Your task to perform on an android device: Open settings Image 0: 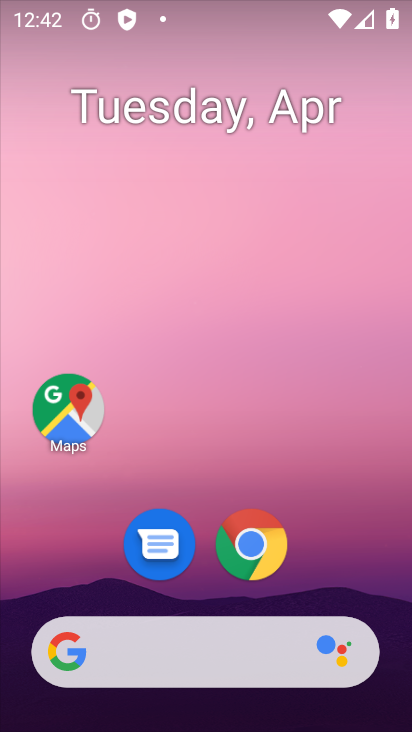
Step 0: drag from (375, 586) to (407, 74)
Your task to perform on an android device: Open settings Image 1: 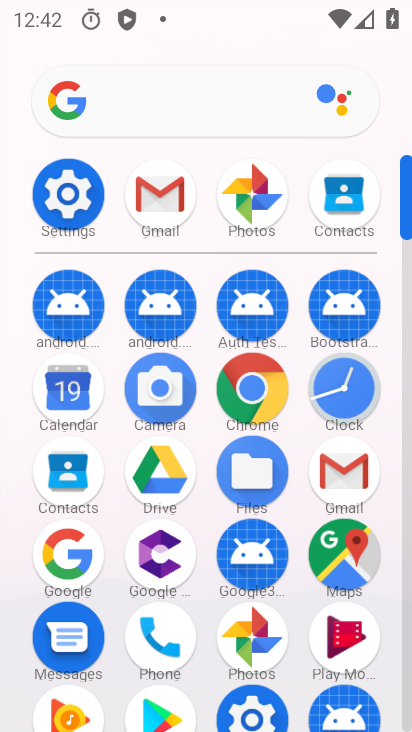
Step 1: click (70, 197)
Your task to perform on an android device: Open settings Image 2: 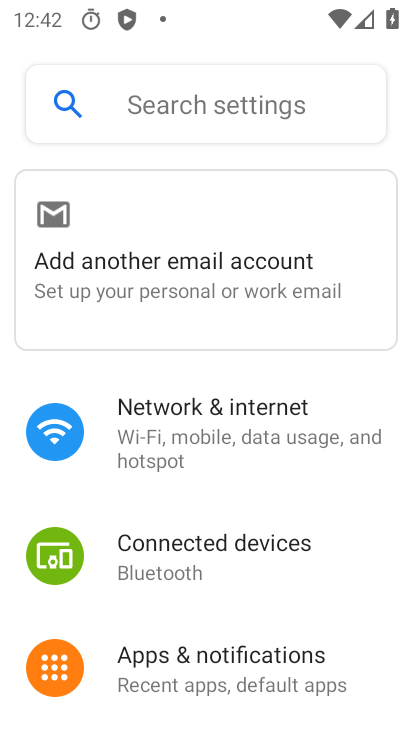
Step 2: task complete